Your task to perform on an android device: toggle pop-ups in chrome Image 0: 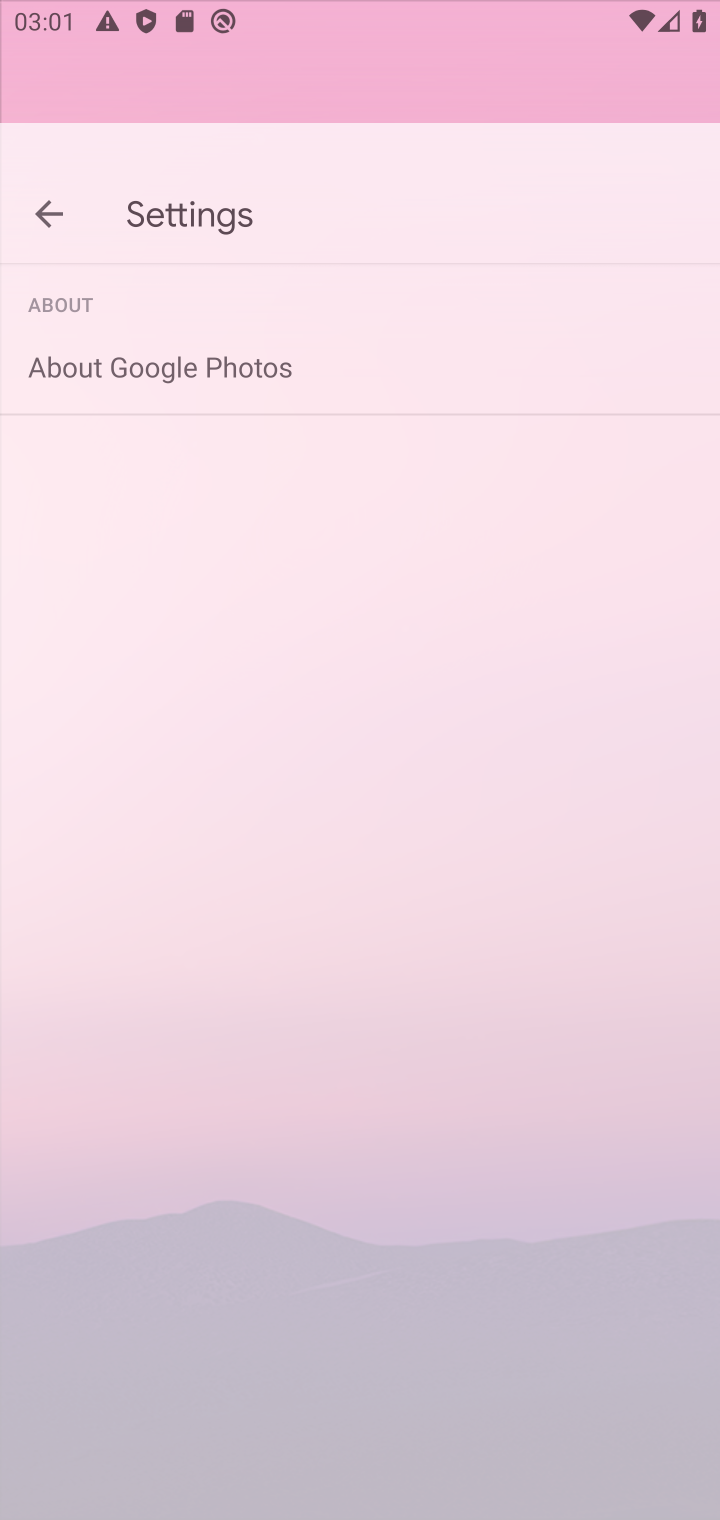
Step 0: press home button
Your task to perform on an android device: toggle pop-ups in chrome Image 1: 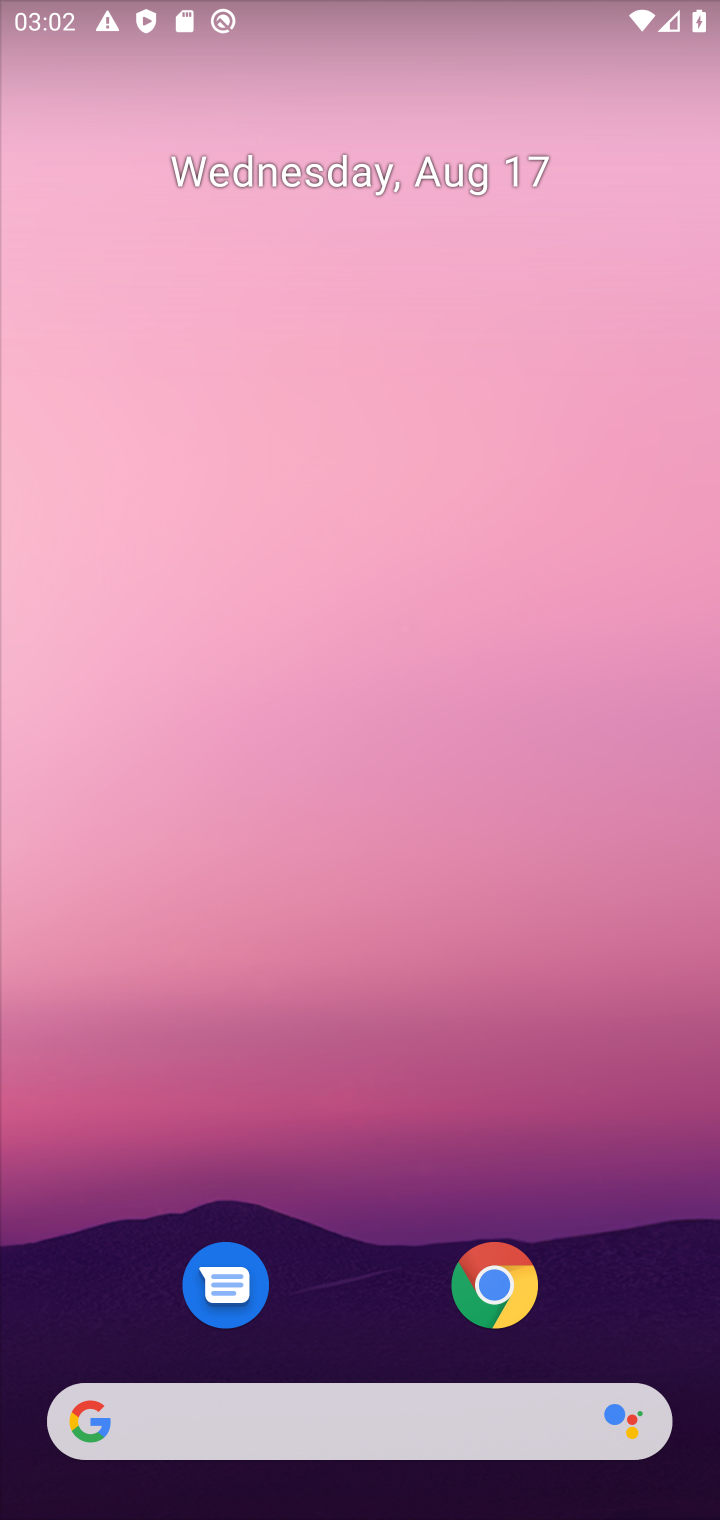
Step 1: drag from (312, 1025) to (400, 23)
Your task to perform on an android device: toggle pop-ups in chrome Image 2: 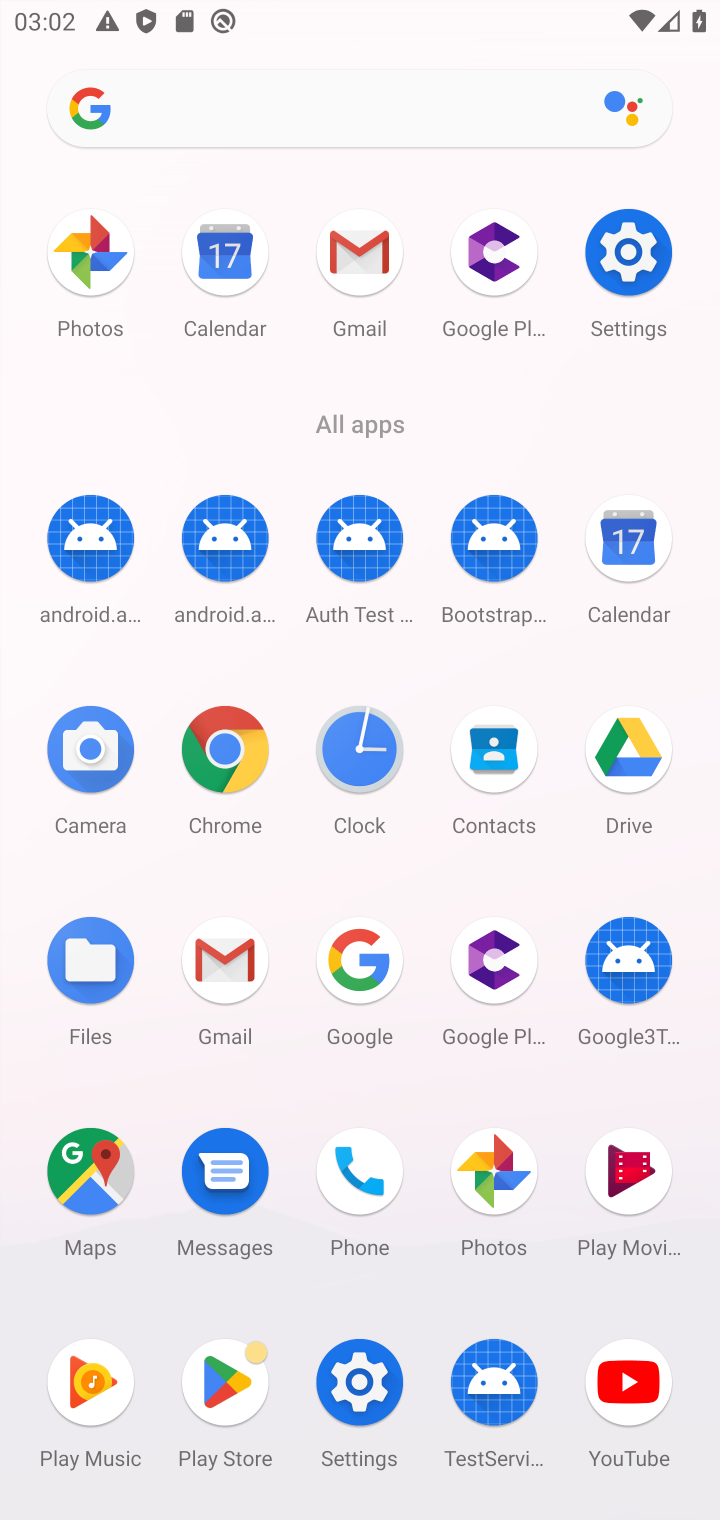
Step 2: click (222, 775)
Your task to perform on an android device: toggle pop-ups in chrome Image 3: 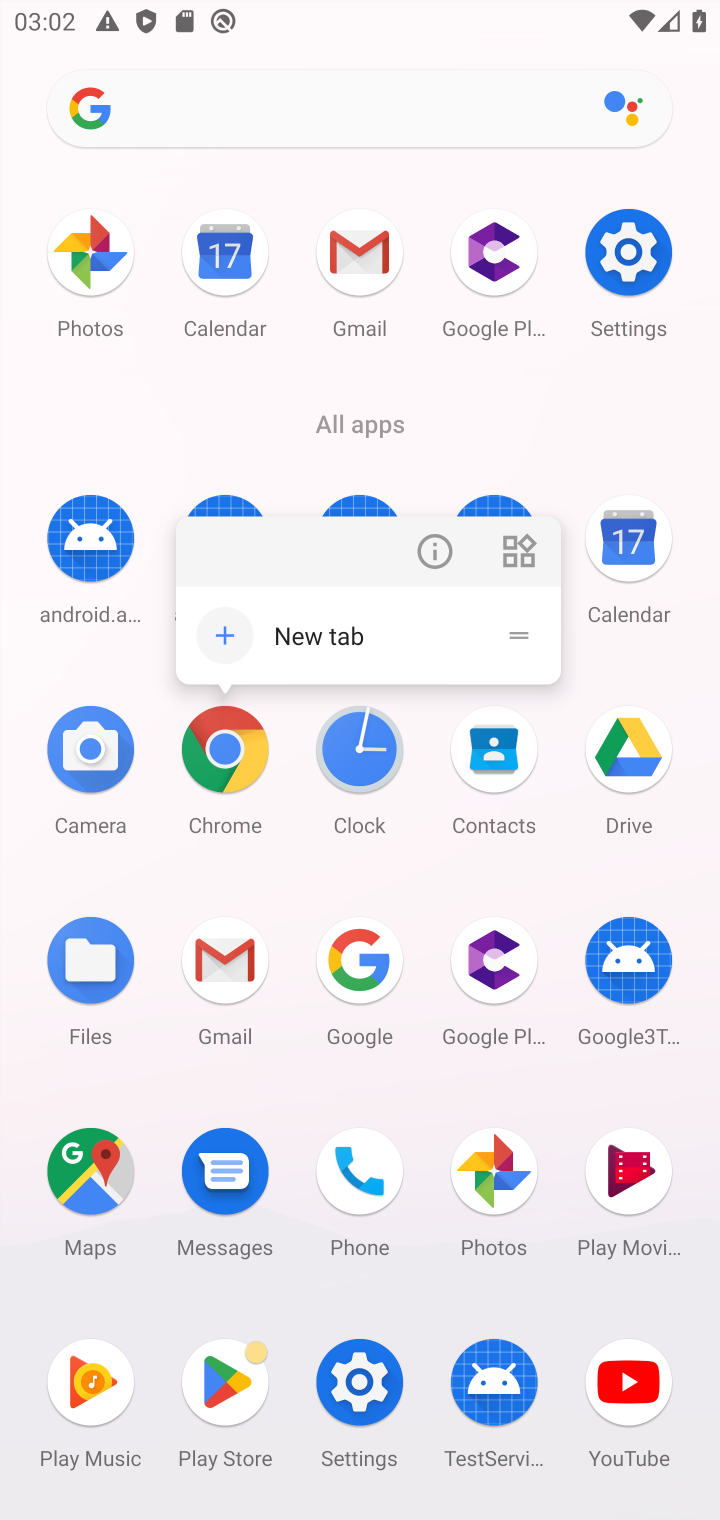
Step 3: click (227, 789)
Your task to perform on an android device: toggle pop-ups in chrome Image 4: 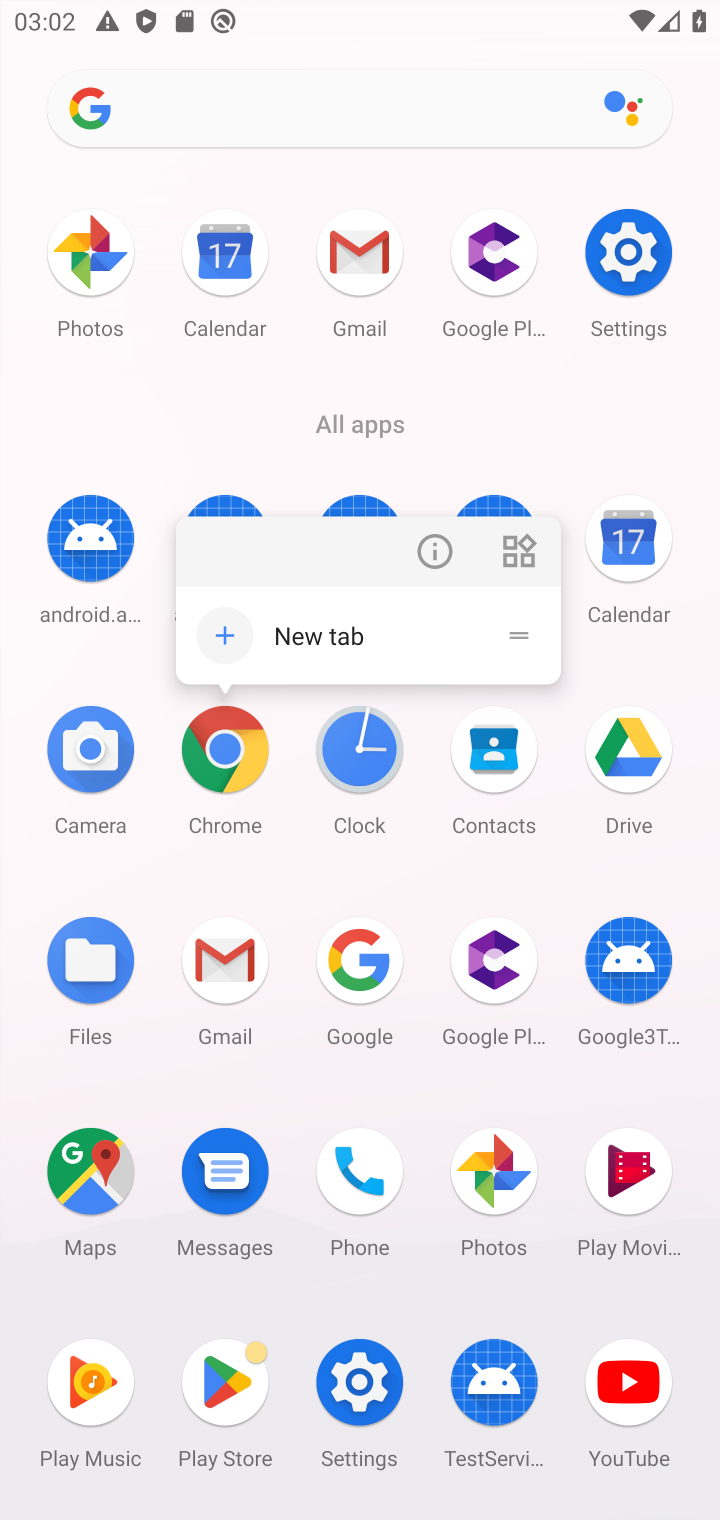
Step 4: click (227, 764)
Your task to perform on an android device: toggle pop-ups in chrome Image 5: 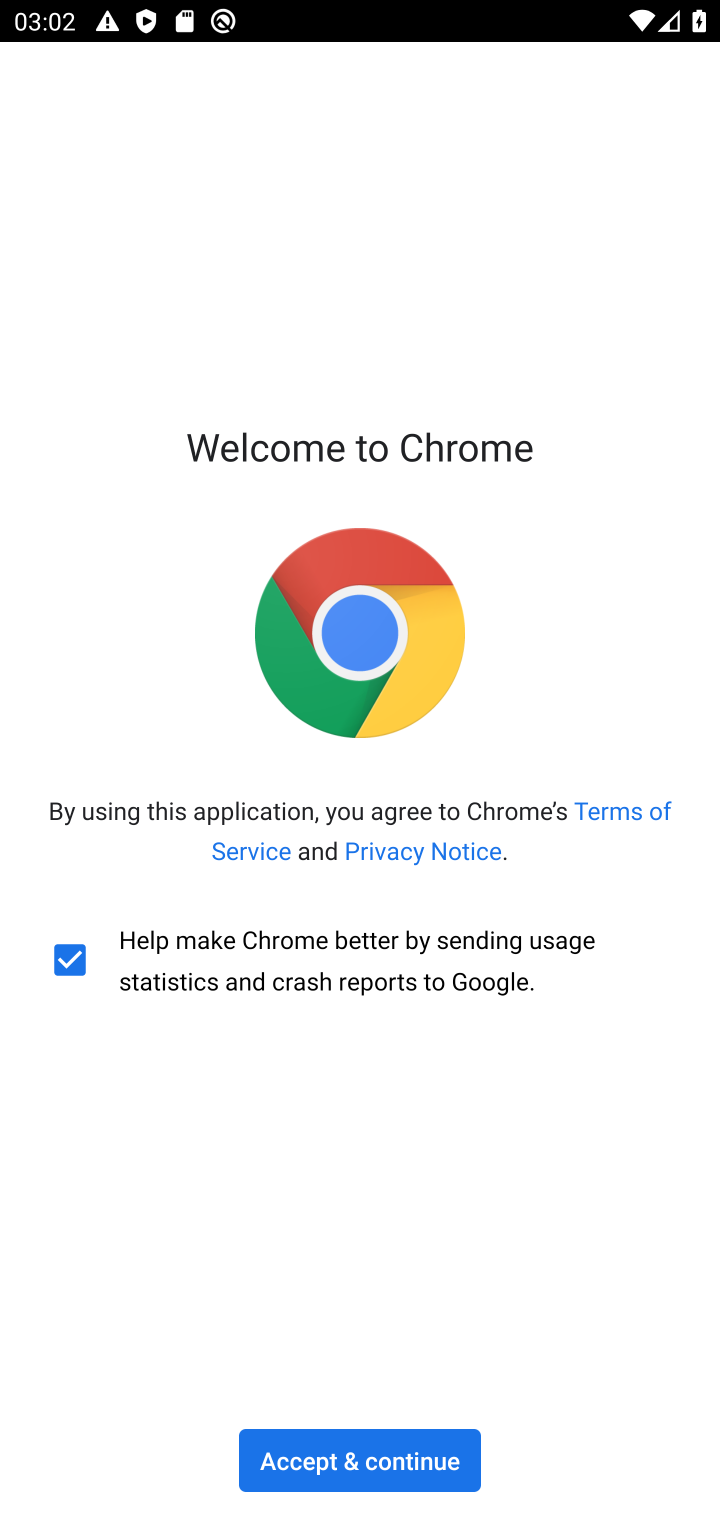
Step 5: click (401, 1452)
Your task to perform on an android device: toggle pop-ups in chrome Image 6: 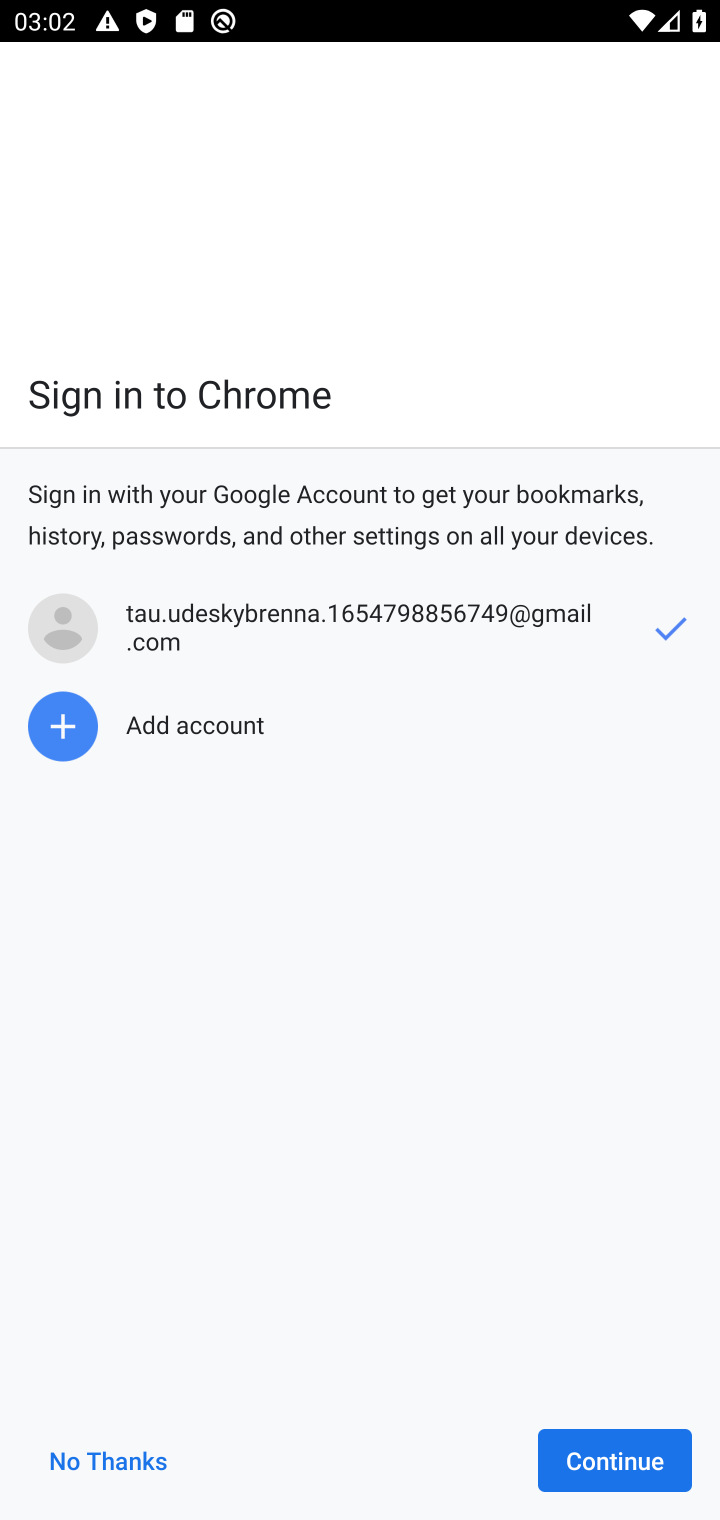
Step 6: click (639, 1452)
Your task to perform on an android device: toggle pop-ups in chrome Image 7: 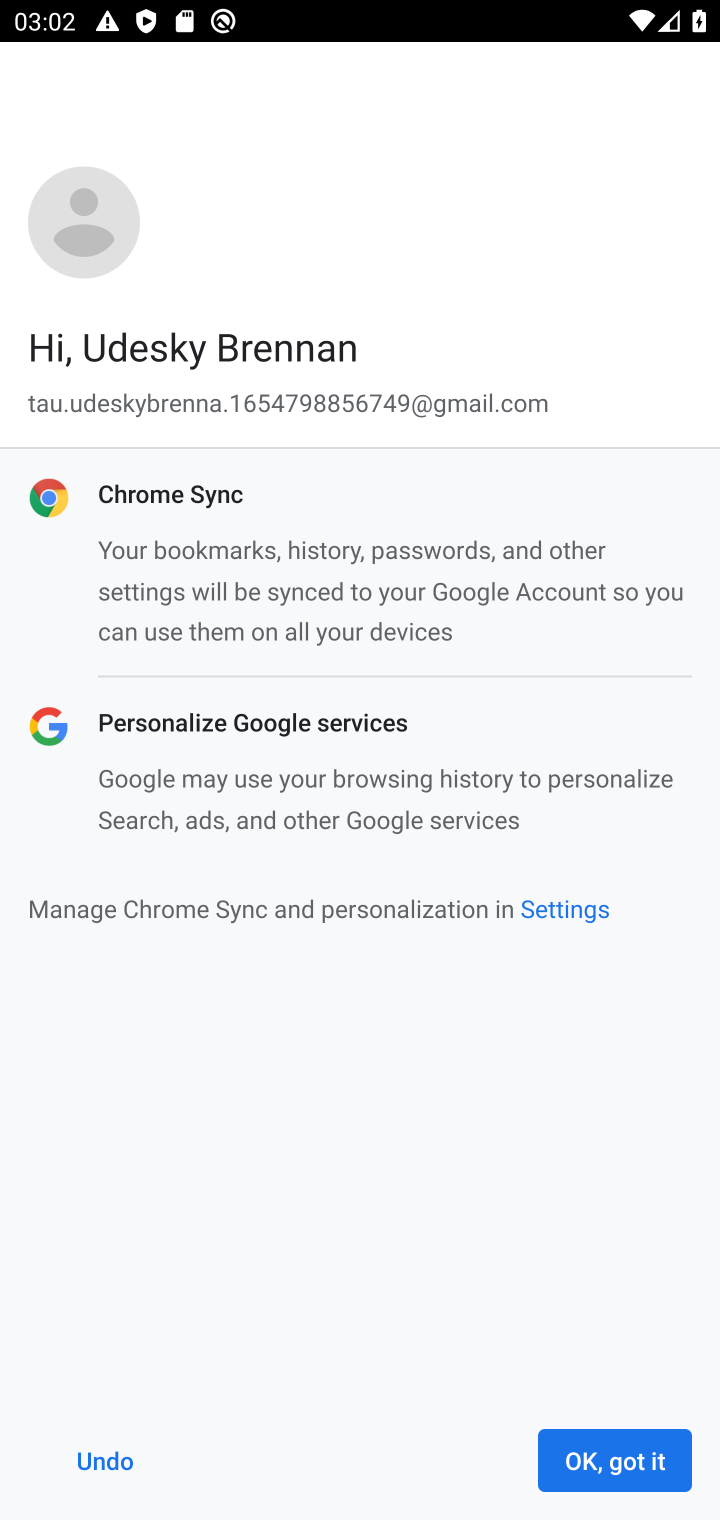
Step 7: click (635, 1458)
Your task to perform on an android device: toggle pop-ups in chrome Image 8: 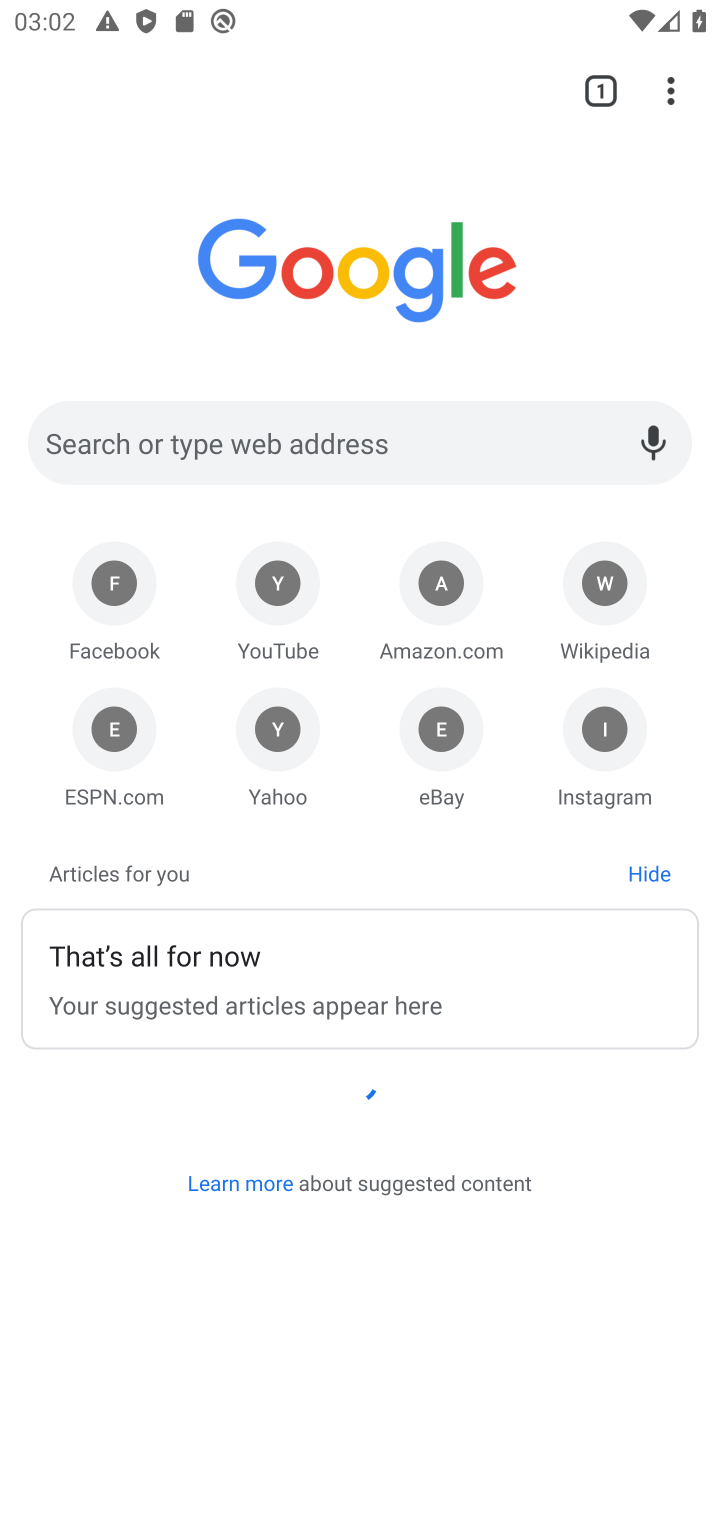
Step 8: click (664, 82)
Your task to perform on an android device: toggle pop-ups in chrome Image 9: 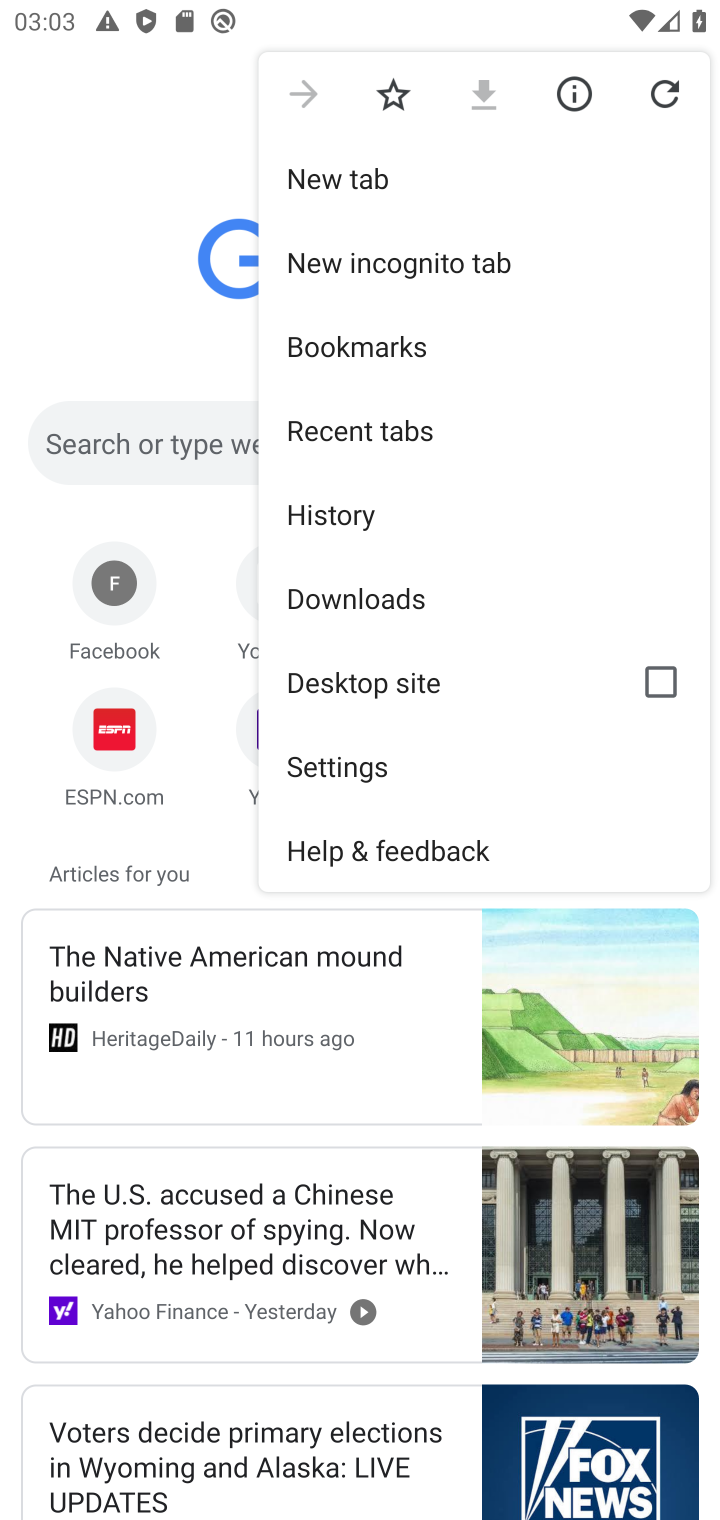
Step 9: click (316, 751)
Your task to perform on an android device: toggle pop-ups in chrome Image 10: 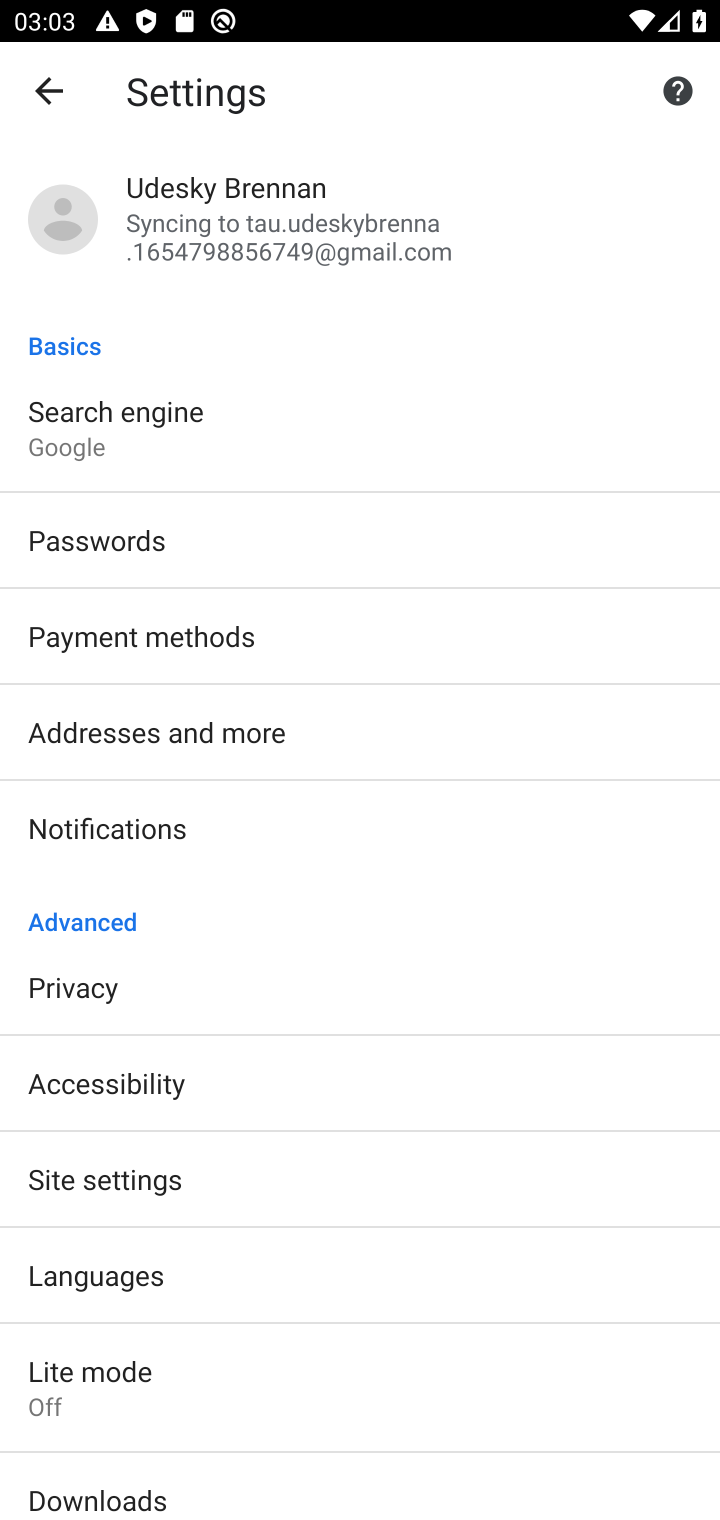
Step 10: click (137, 1173)
Your task to perform on an android device: toggle pop-ups in chrome Image 11: 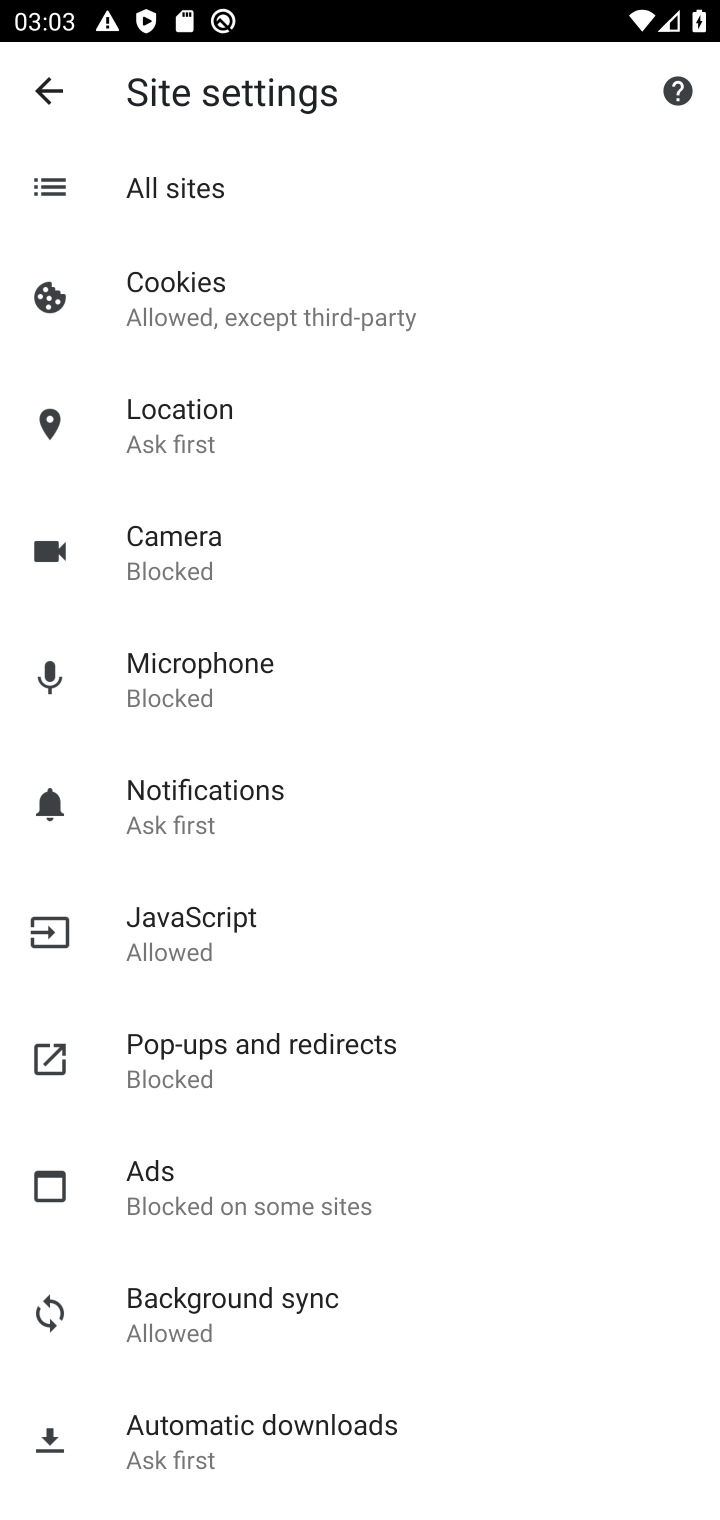
Step 11: click (223, 1057)
Your task to perform on an android device: toggle pop-ups in chrome Image 12: 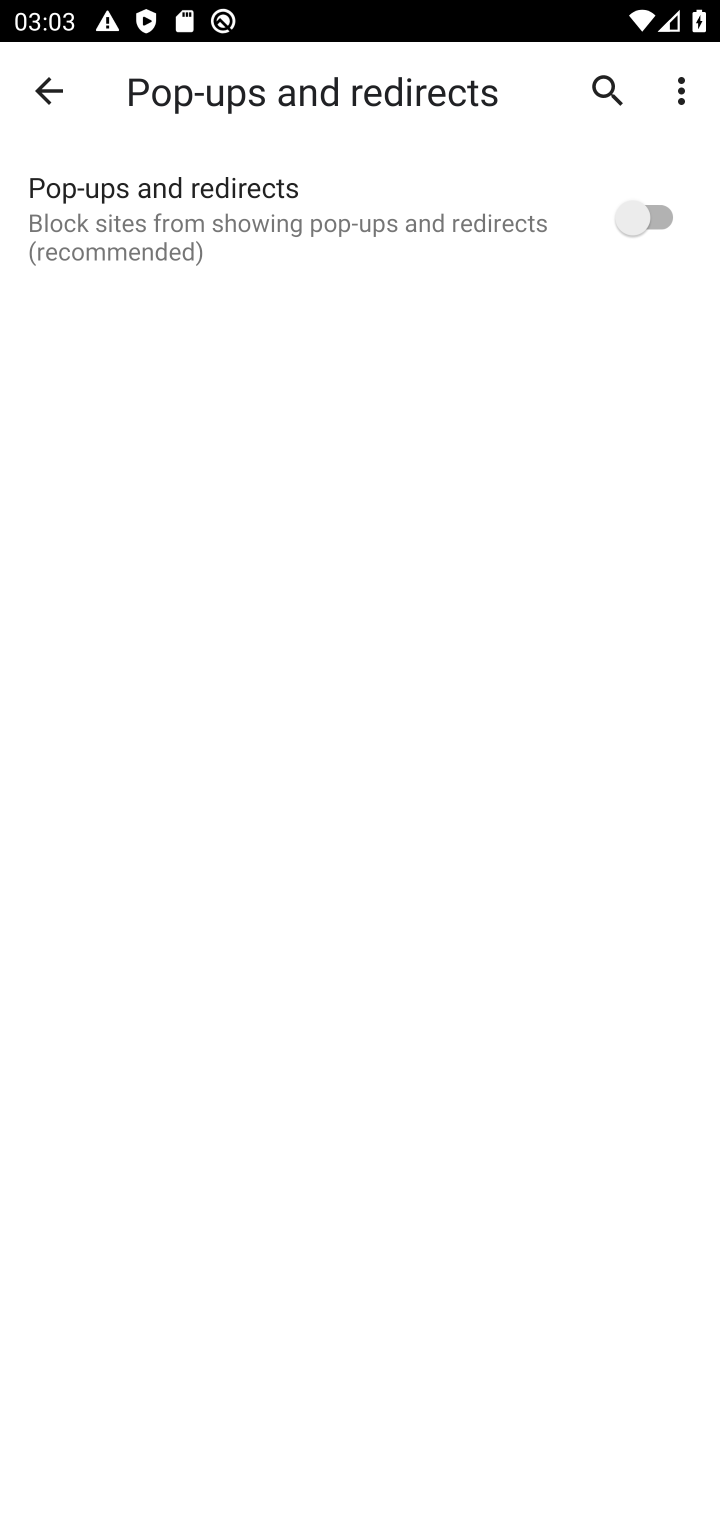
Step 12: click (626, 234)
Your task to perform on an android device: toggle pop-ups in chrome Image 13: 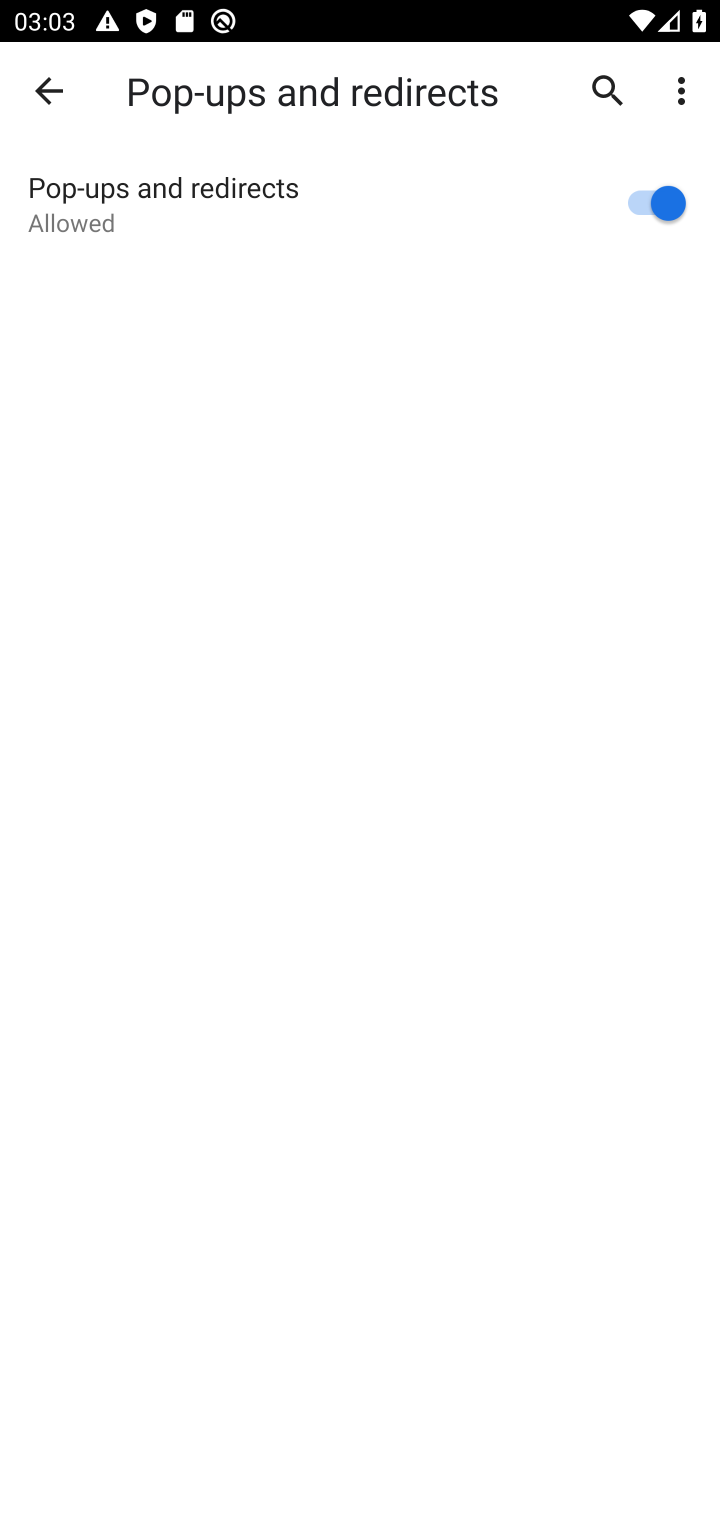
Step 13: task complete